Your task to perform on an android device: Open ESPN.com Image 0: 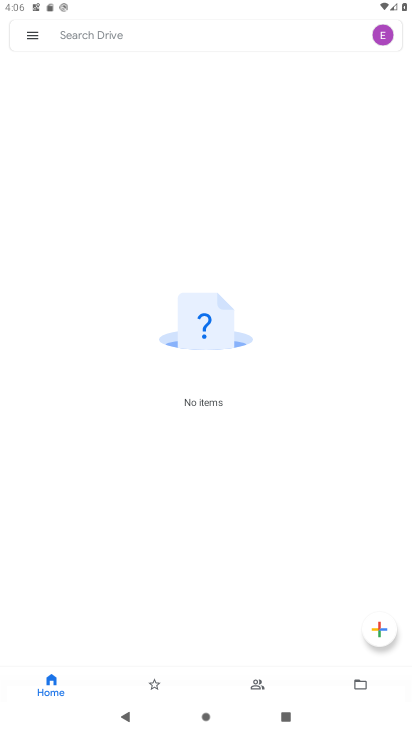
Step 0: press home button
Your task to perform on an android device: Open ESPN.com Image 1: 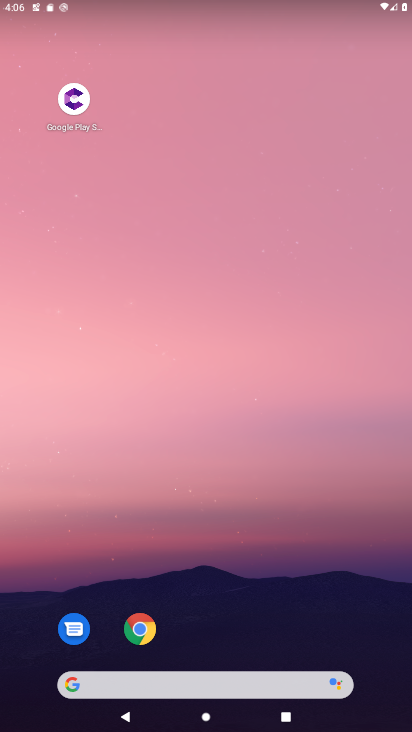
Step 1: click (136, 625)
Your task to perform on an android device: Open ESPN.com Image 2: 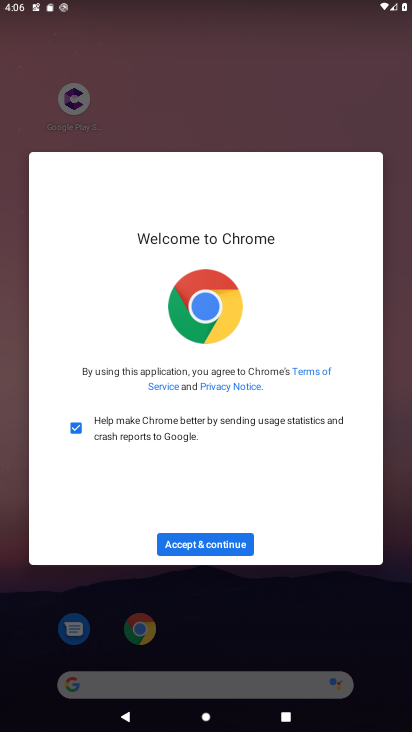
Step 2: click (228, 542)
Your task to perform on an android device: Open ESPN.com Image 3: 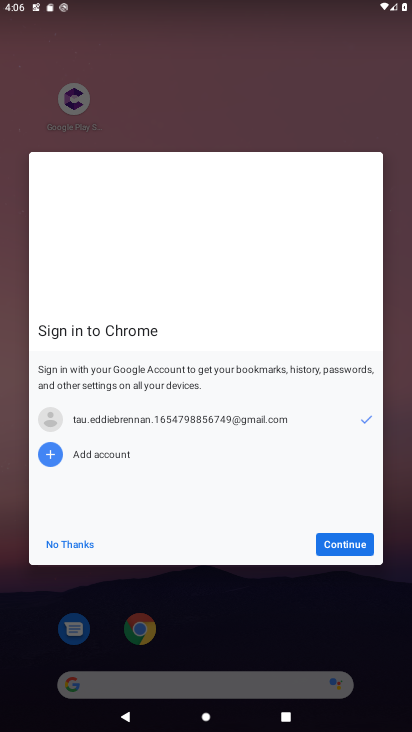
Step 3: click (325, 541)
Your task to perform on an android device: Open ESPN.com Image 4: 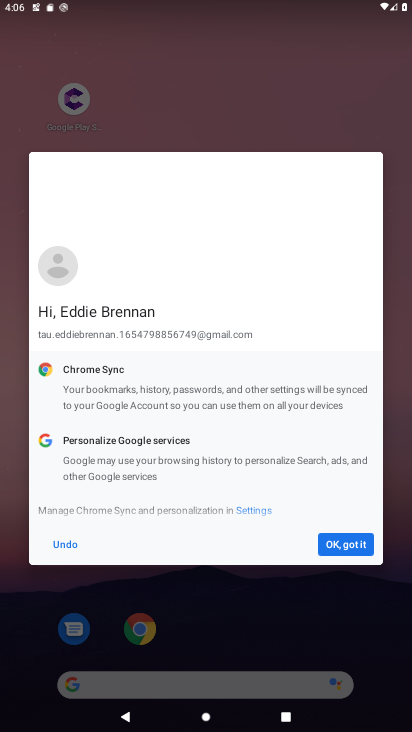
Step 4: click (325, 541)
Your task to perform on an android device: Open ESPN.com Image 5: 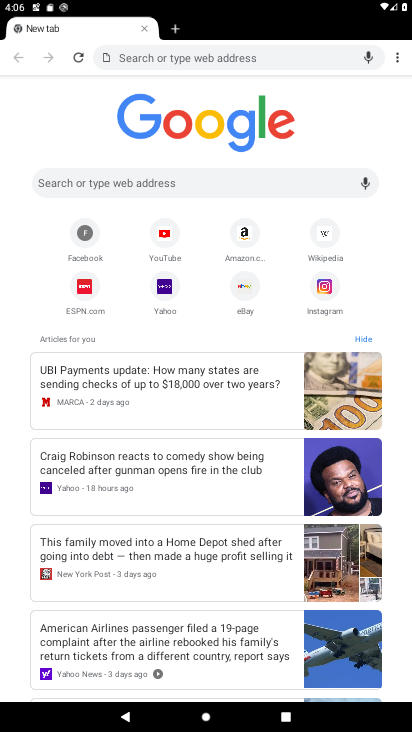
Step 5: click (83, 291)
Your task to perform on an android device: Open ESPN.com Image 6: 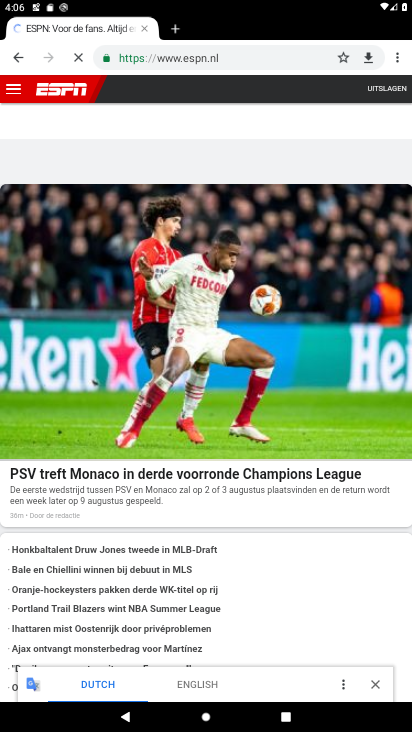
Step 6: task complete